Your task to perform on an android device: check battery use Image 0: 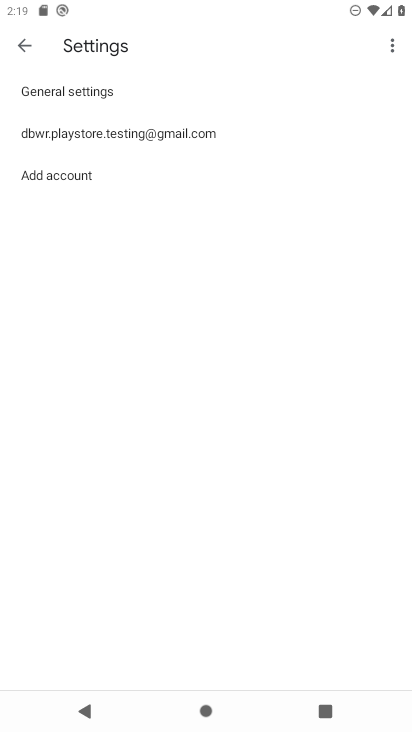
Step 0: press home button
Your task to perform on an android device: check battery use Image 1: 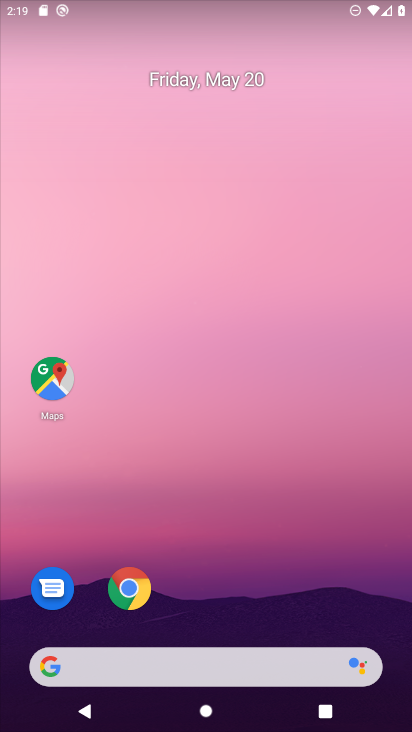
Step 1: drag from (395, 640) to (289, 63)
Your task to perform on an android device: check battery use Image 2: 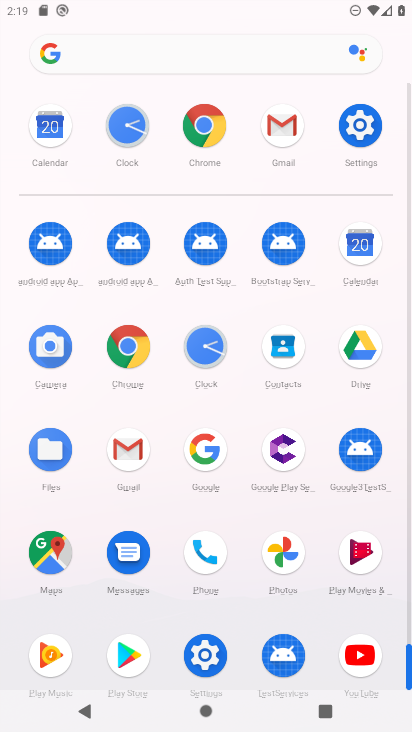
Step 2: click (202, 655)
Your task to perform on an android device: check battery use Image 3: 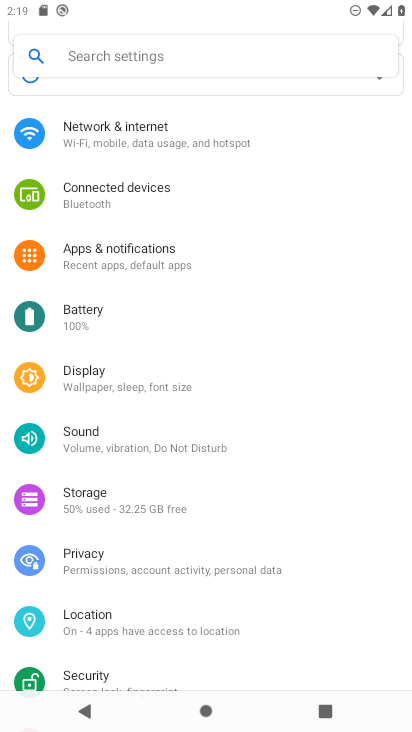
Step 3: click (71, 310)
Your task to perform on an android device: check battery use Image 4: 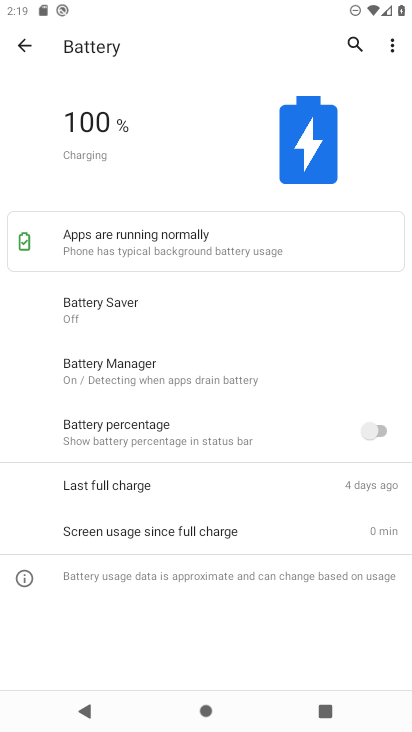
Step 4: click (391, 51)
Your task to perform on an android device: check battery use Image 5: 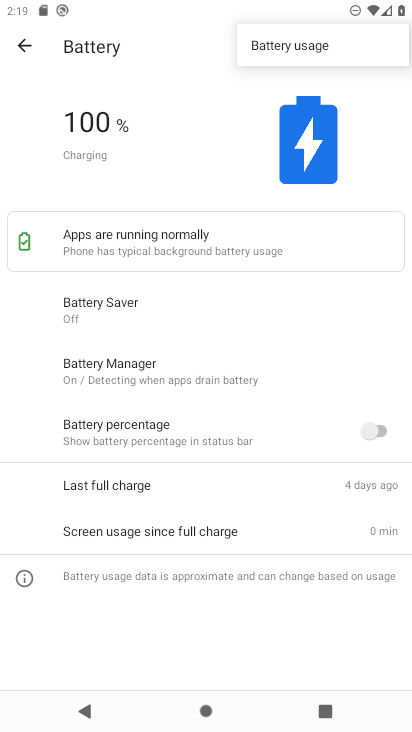
Step 5: click (276, 45)
Your task to perform on an android device: check battery use Image 6: 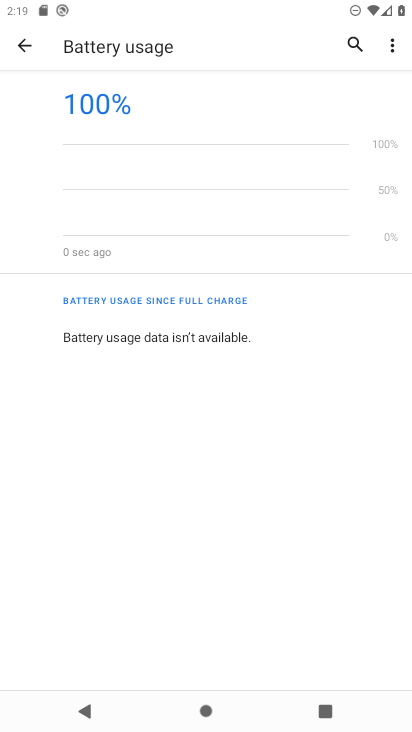
Step 6: task complete